Your task to perform on an android device: turn on wifi Image 0: 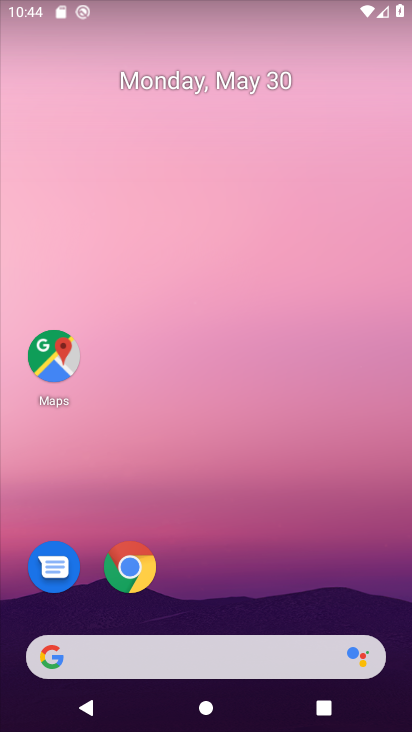
Step 0: drag from (277, 368) to (293, 73)
Your task to perform on an android device: turn on wifi Image 1: 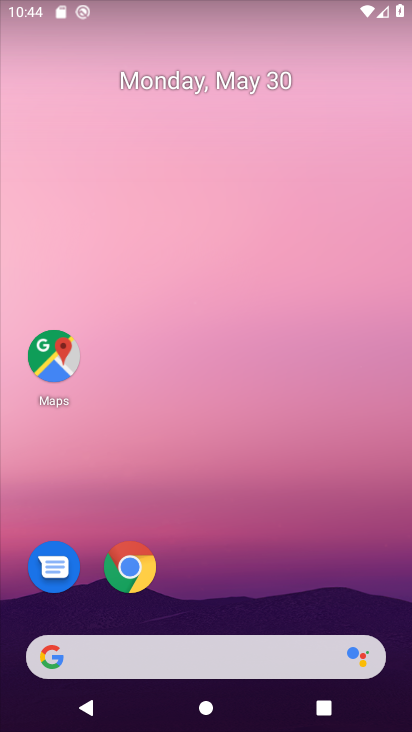
Step 1: drag from (244, 629) to (255, 148)
Your task to perform on an android device: turn on wifi Image 2: 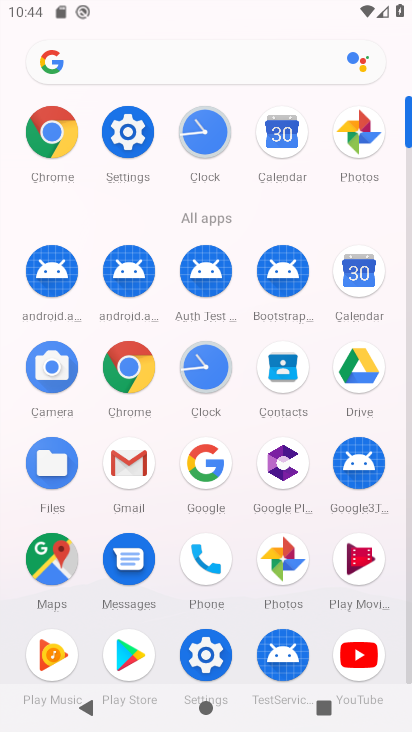
Step 2: click (123, 138)
Your task to perform on an android device: turn on wifi Image 3: 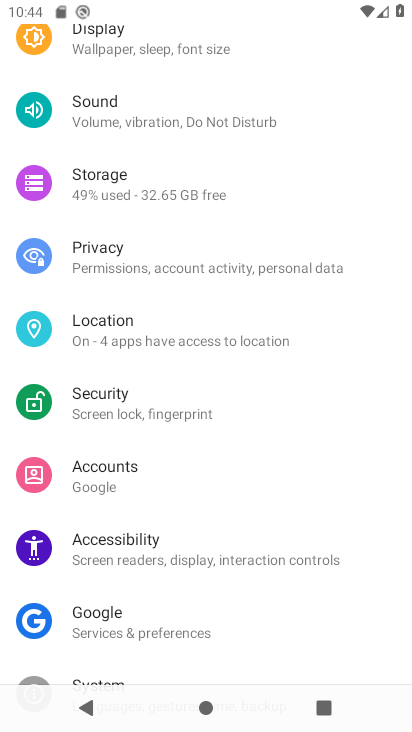
Step 3: drag from (202, 83) to (222, 529)
Your task to perform on an android device: turn on wifi Image 4: 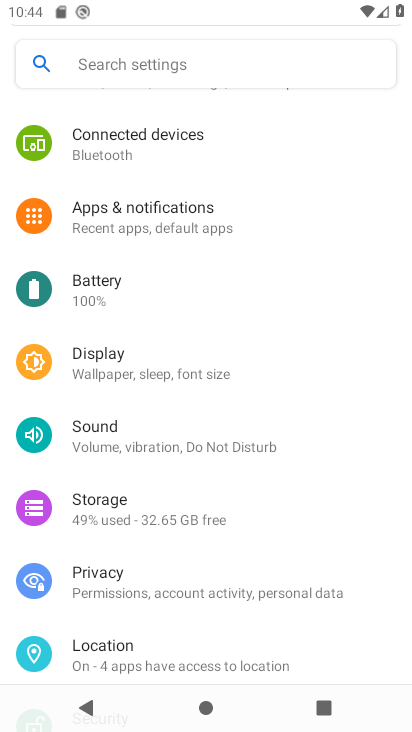
Step 4: drag from (183, 132) to (242, 506)
Your task to perform on an android device: turn on wifi Image 5: 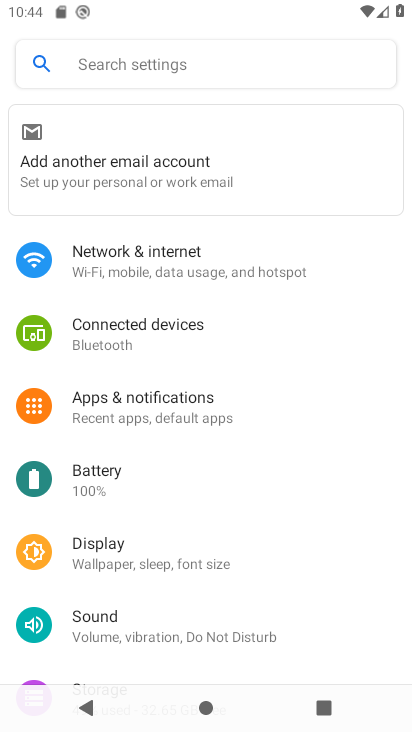
Step 5: click (171, 277)
Your task to perform on an android device: turn on wifi Image 6: 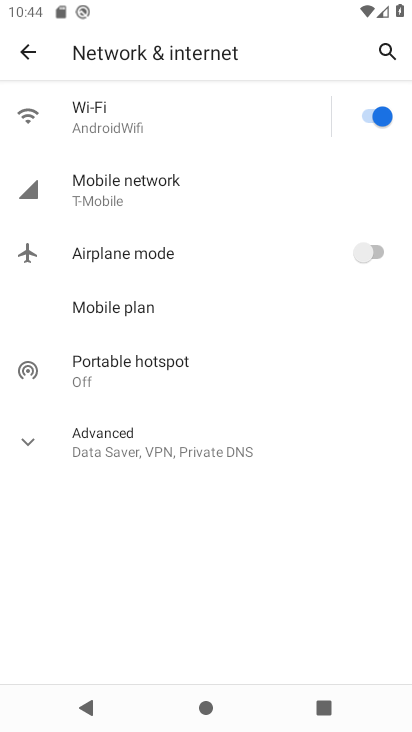
Step 6: task complete